Your task to perform on an android device: Toggle the flashlight Image 0: 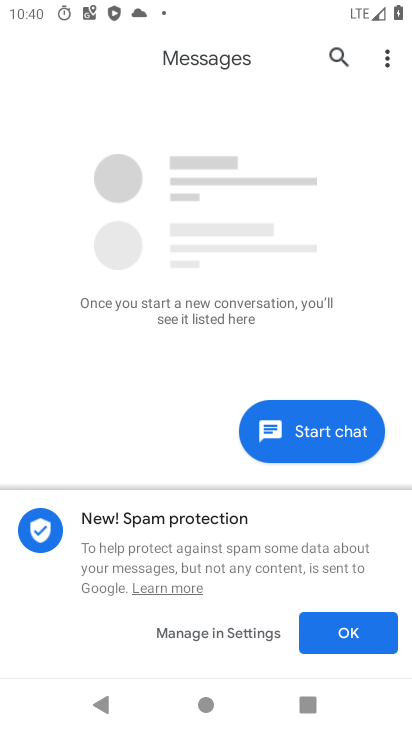
Step 0: press home button
Your task to perform on an android device: Toggle the flashlight Image 1: 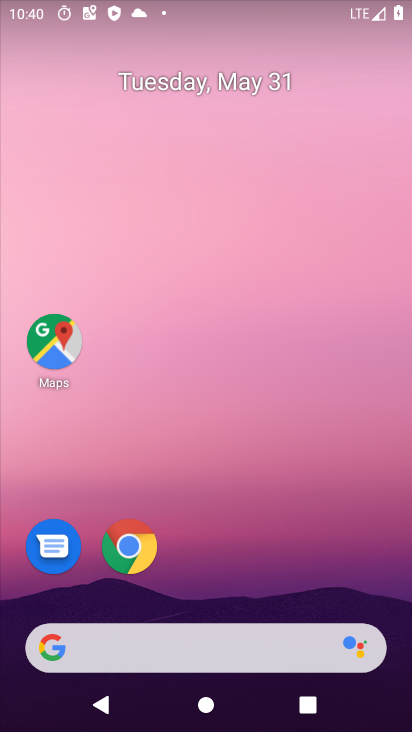
Step 1: drag from (277, 581) to (284, 158)
Your task to perform on an android device: Toggle the flashlight Image 2: 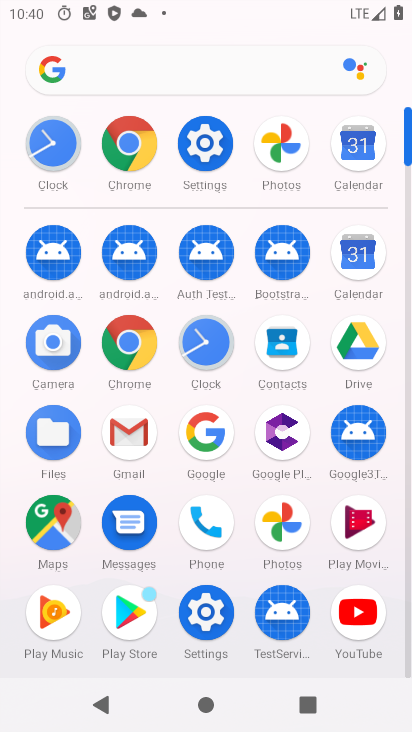
Step 2: click (214, 147)
Your task to perform on an android device: Toggle the flashlight Image 3: 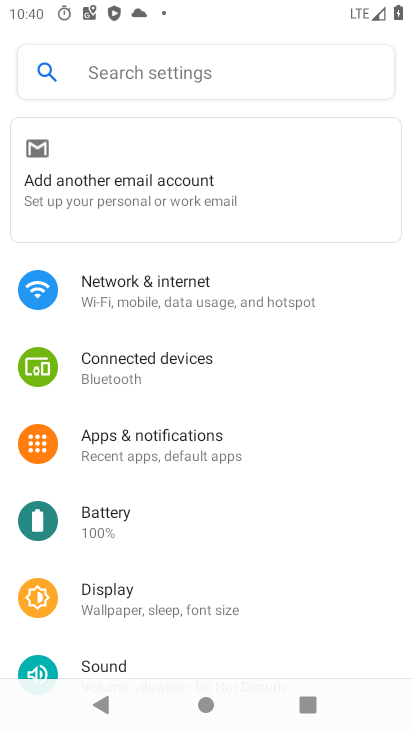
Step 3: drag from (274, 129) to (261, 442)
Your task to perform on an android device: Toggle the flashlight Image 4: 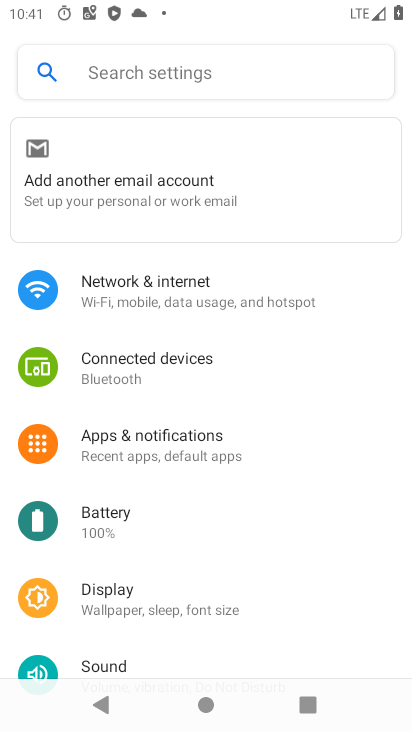
Step 4: drag from (287, 480) to (304, 171)
Your task to perform on an android device: Toggle the flashlight Image 5: 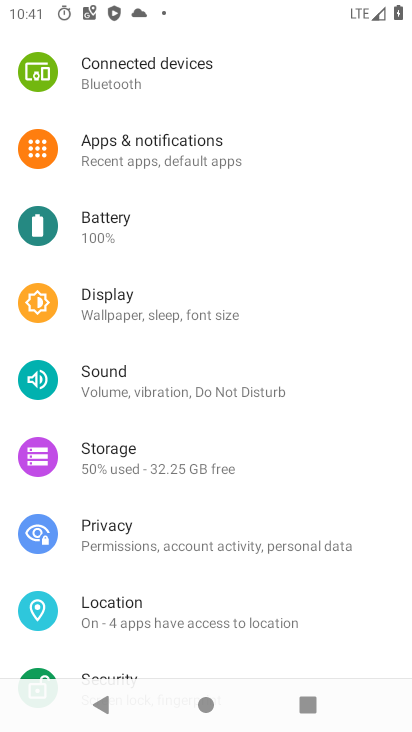
Step 5: click (282, 303)
Your task to perform on an android device: Toggle the flashlight Image 6: 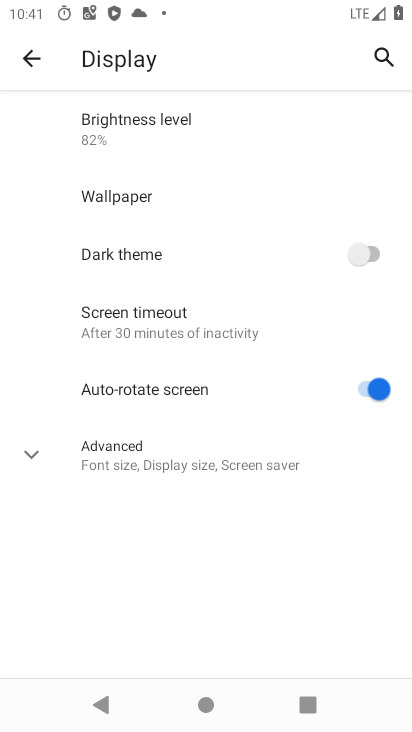
Step 6: click (246, 454)
Your task to perform on an android device: Toggle the flashlight Image 7: 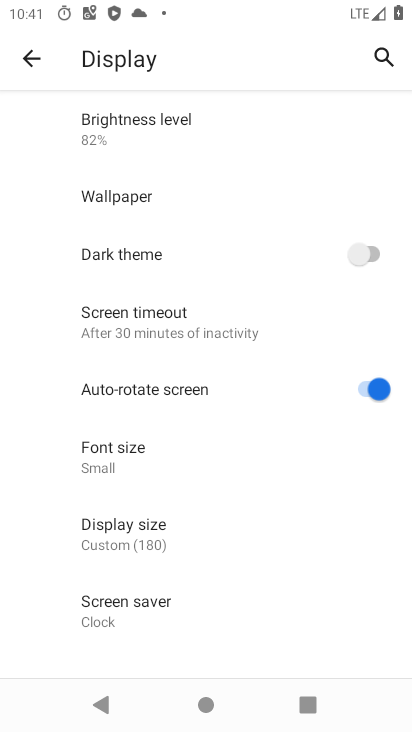
Step 7: task complete